Your task to perform on an android device: Is it going to rain tomorrow? Image 0: 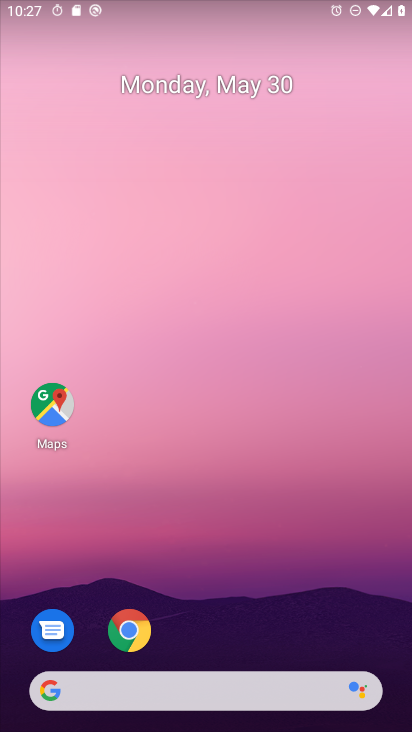
Step 0: drag from (354, 623) to (308, 31)
Your task to perform on an android device: Is it going to rain tomorrow? Image 1: 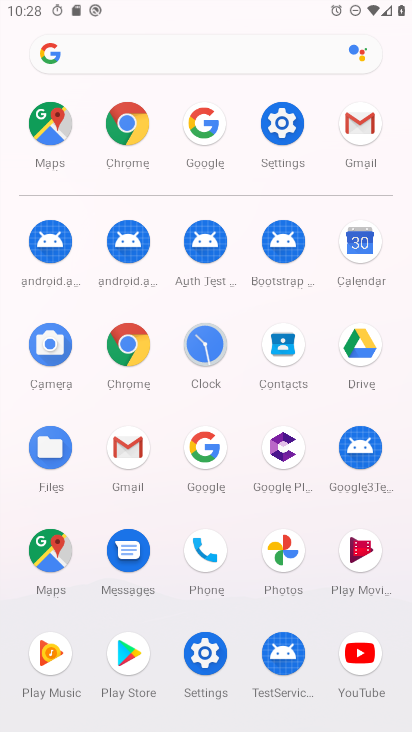
Step 1: click (200, 469)
Your task to perform on an android device: Is it going to rain tomorrow? Image 2: 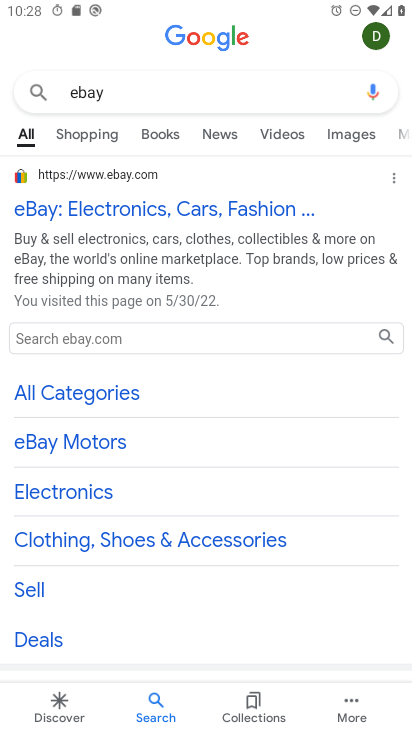
Step 2: press back button
Your task to perform on an android device: Is it going to rain tomorrow? Image 3: 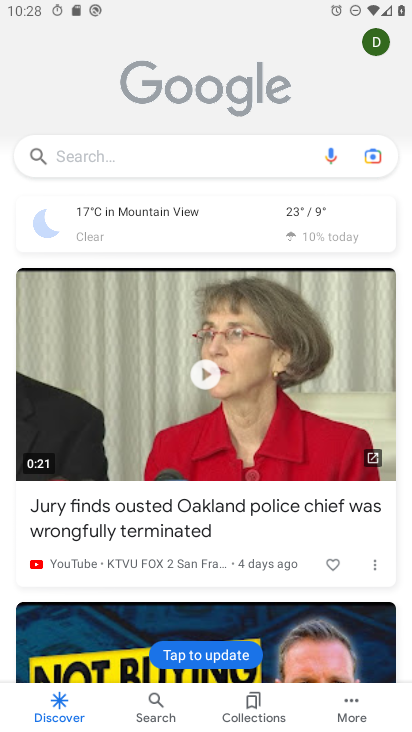
Step 3: click (148, 147)
Your task to perform on an android device: Is it going to rain tomorrow? Image 4: 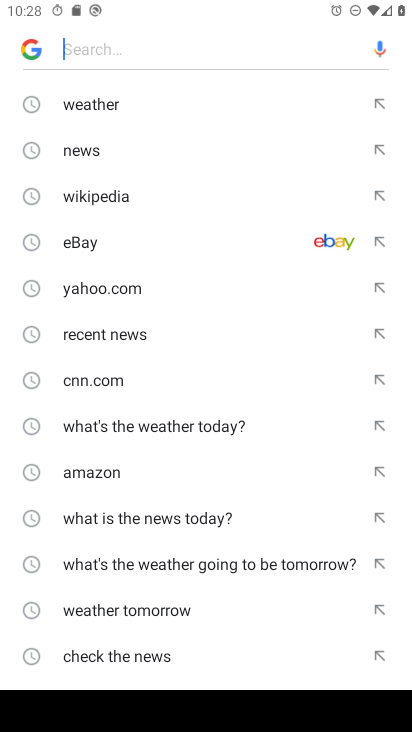
Step 4: drag from (164, 595) to (234, 154)
Your task to perform on an android device: Is it going to rain tomorrow? Image 5: 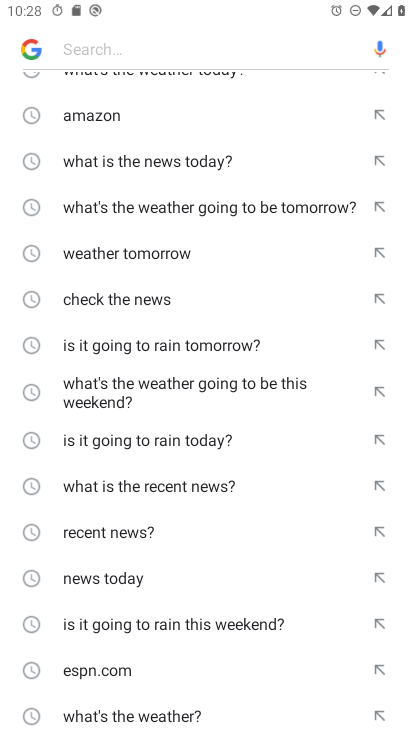
Step 5: click (239, 342)
Your task to perform on an android device: Is it going to rain tomorrow? Image 6: 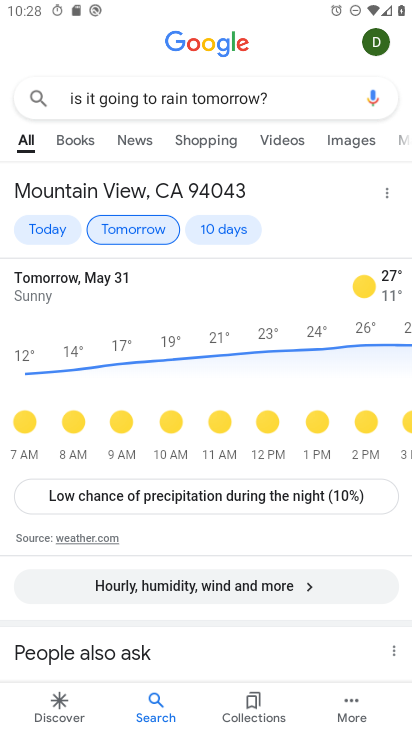
Step 6: task complete